Your task to perform on an android device: Go to calendar. Show me events next week Image 0: 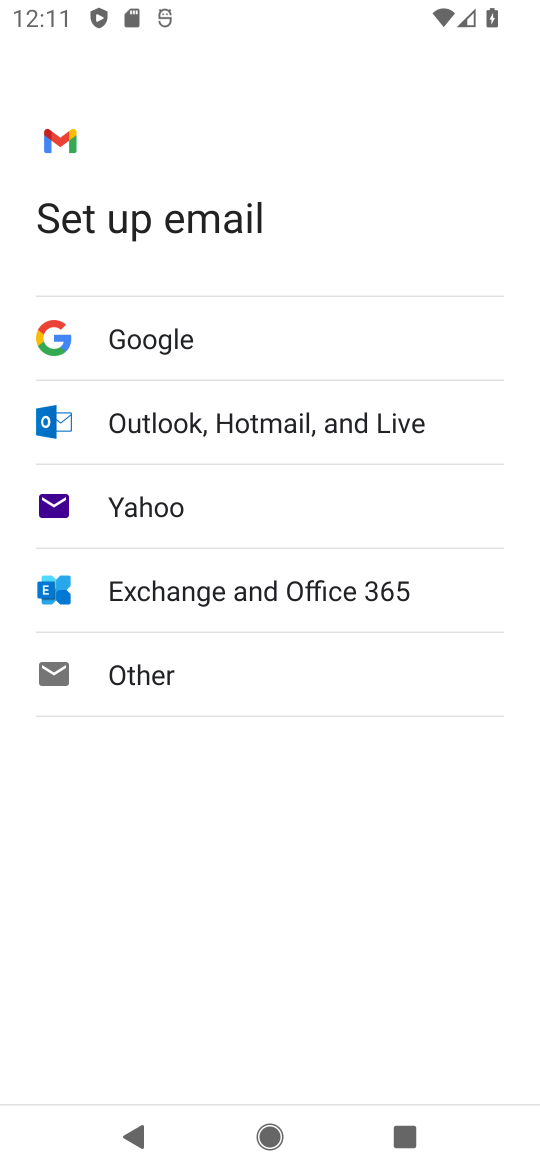
Step 0: press back button
Your task to perform on an android device: Go to calendar. Show me events next week Image 1: 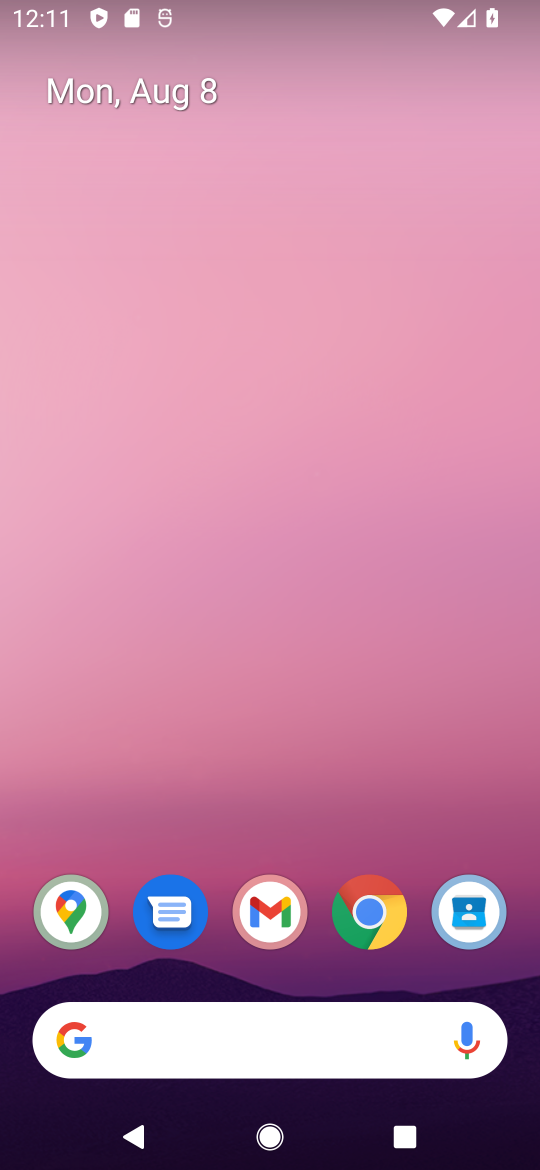
Step 1: drag from (218, 955) to (425, 58)
Your task to perform on an android device: Go to calendar. Show me events next week Image 2: 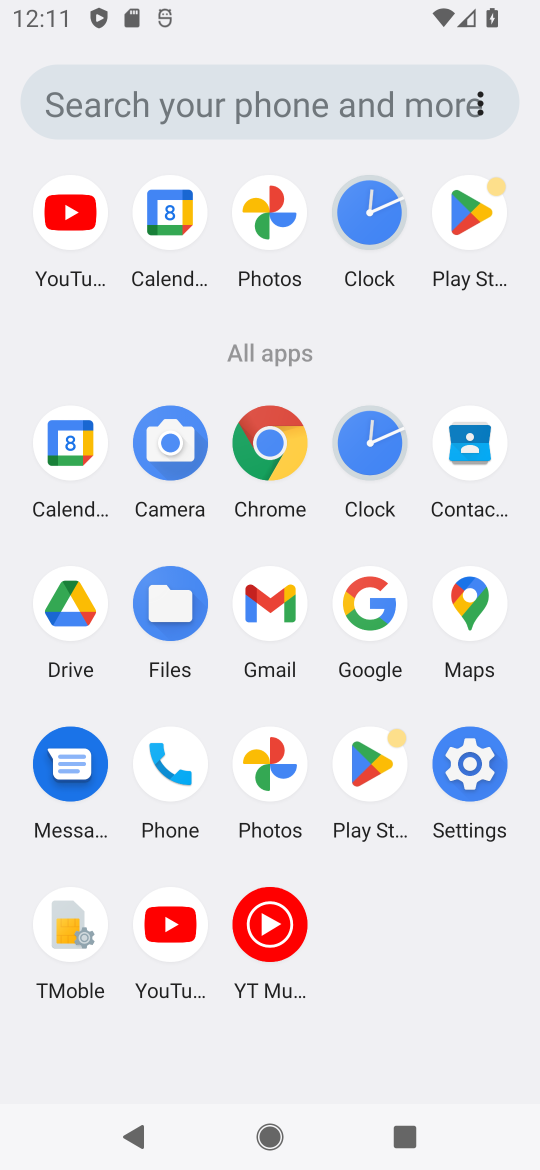
Step 2: click (71, 454)
Your task to perform on an android device: Go to calendar. Show me events next week Image 3: 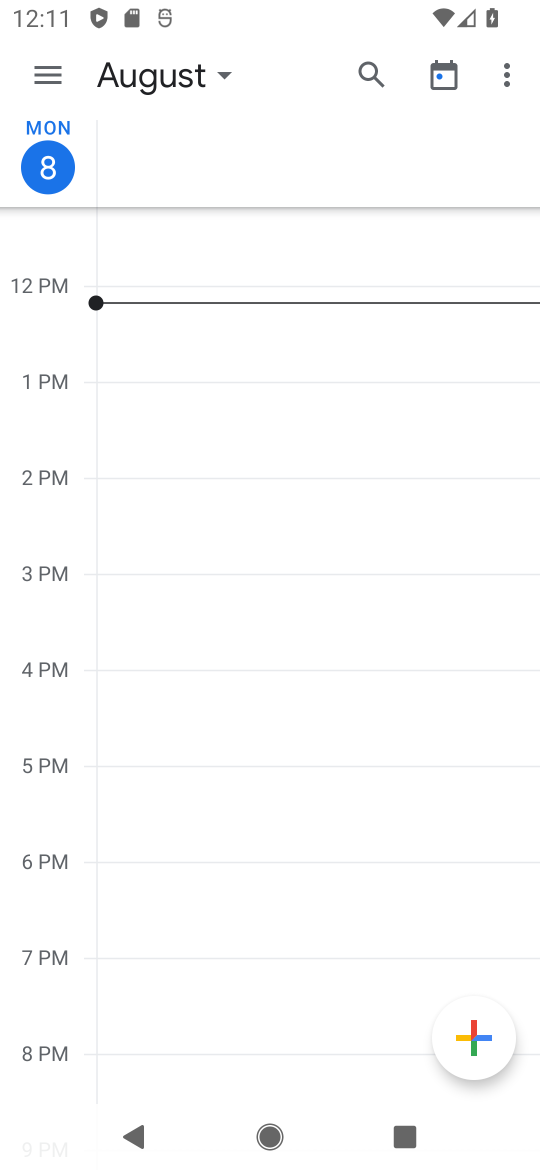
Step 3: click (169, 64)
Your task to perform on an android device: Go to calendar. Show me events next week Image 4: 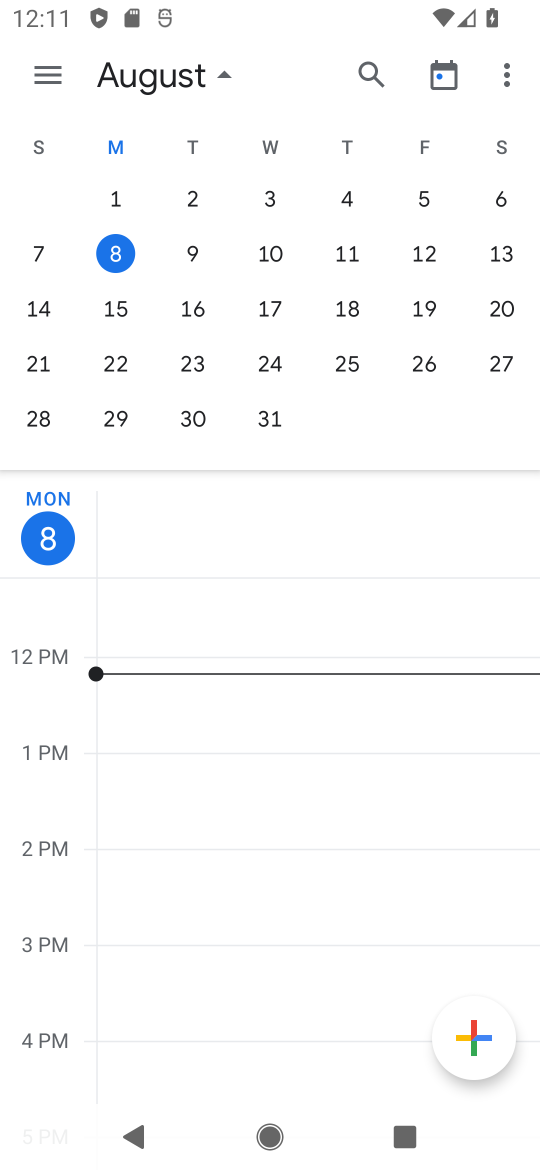
Step 4: drag from (513, 307) to (5, 301)
Your task to perform on an android device: Go to calendar. Show me events next week Image 5: 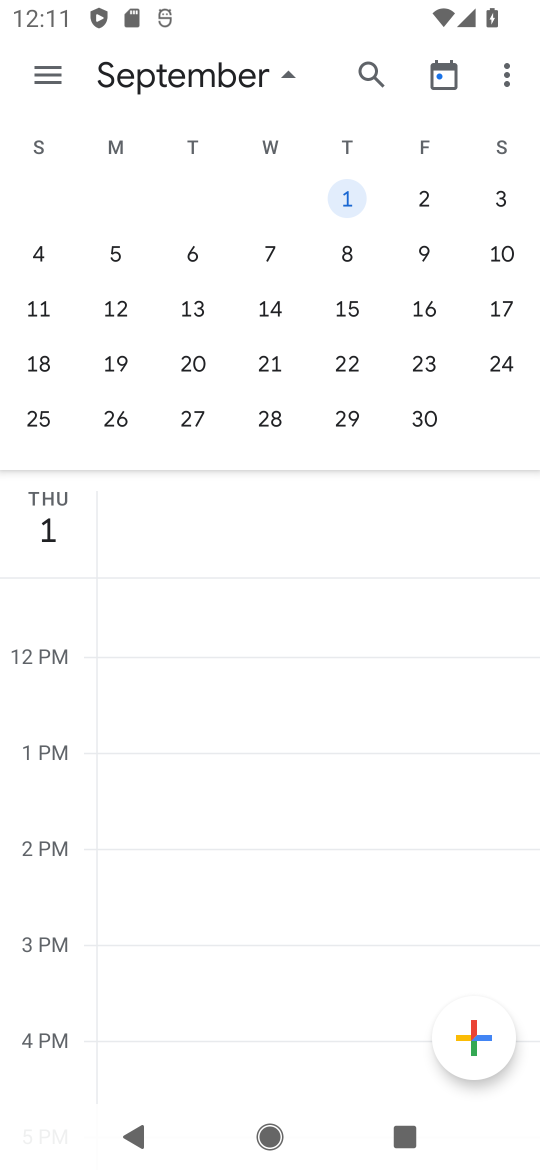
Step 5: drag from (34, 302) to (493, 304)
Your task to perform on an android device: Go to calendar. Show me events next week Image 6: 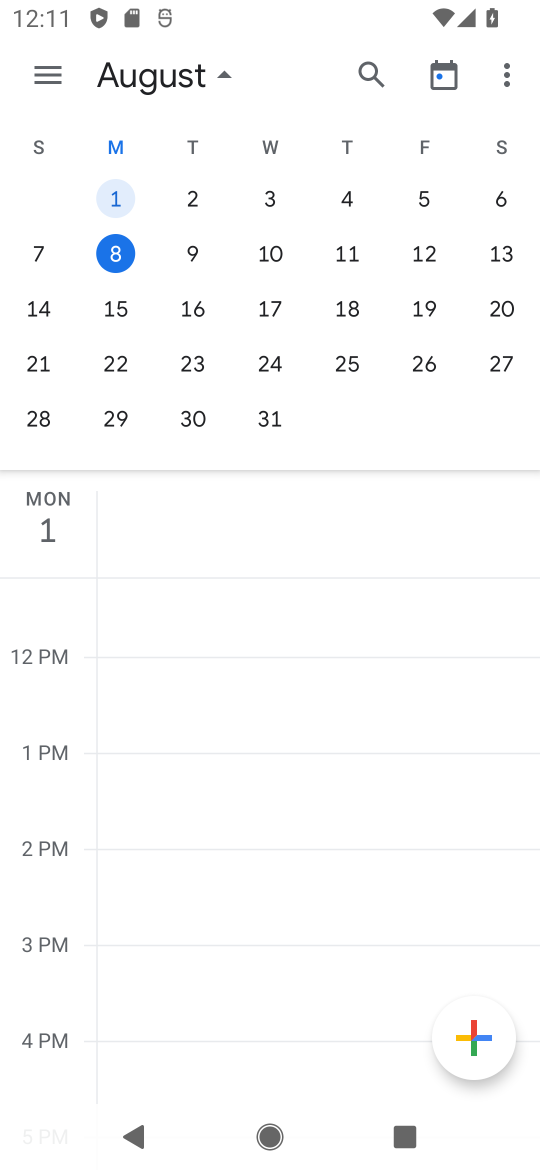
Step 6: click (114, 303)
Your task to perform on an android device: Go to calendar. Show me events next week Image 7: 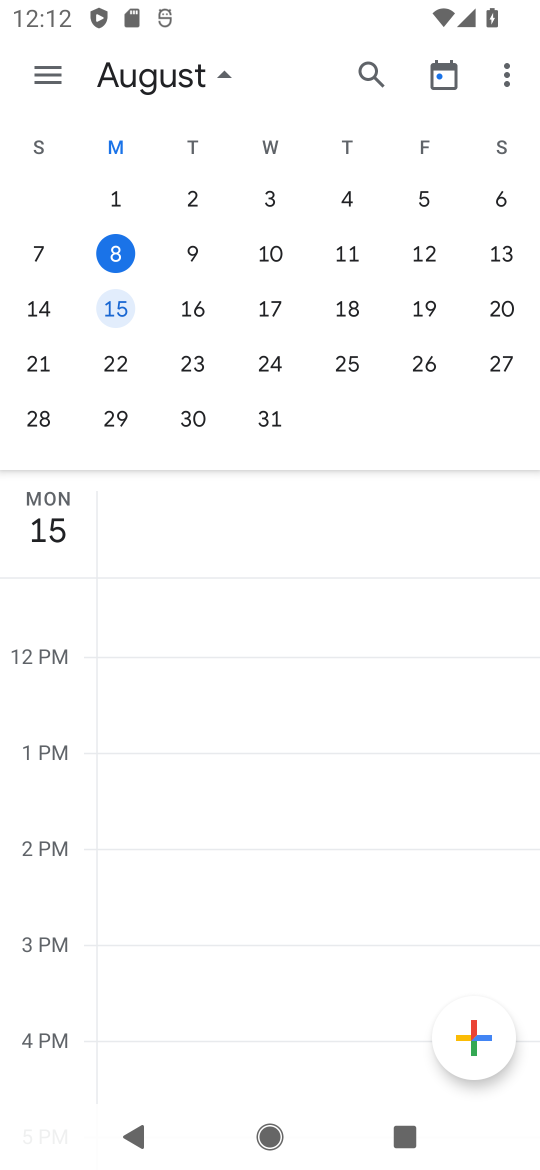
Step 7: click (33, 60)
Your task to perform on an android device: Go to calendar. Show me events next week Image 8: 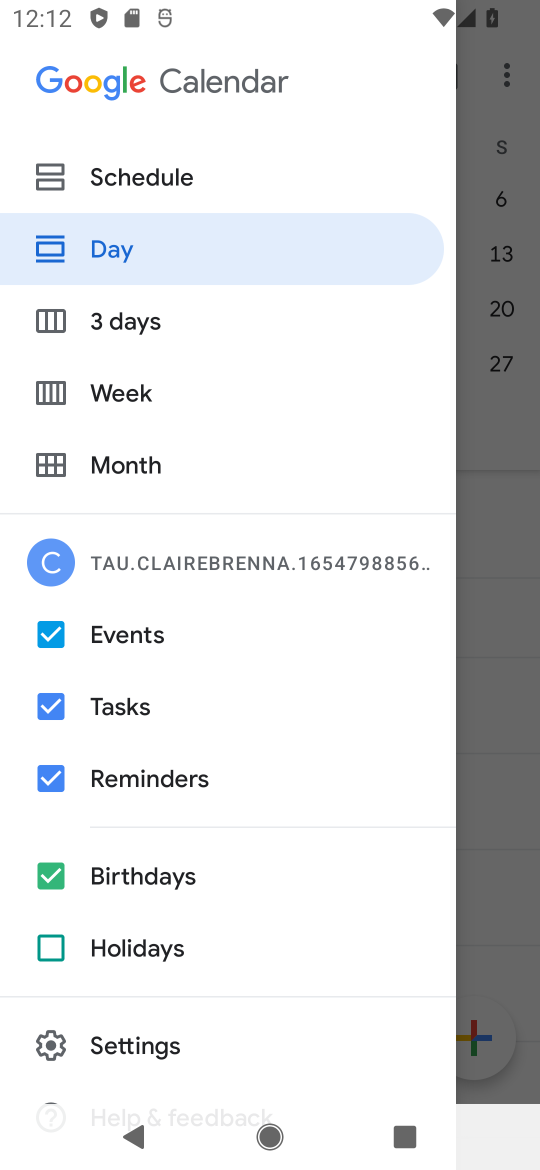
Step 8: click (164, 176)
Your task to perform on an android device: Go to calendar. Show me events next week Image 9: 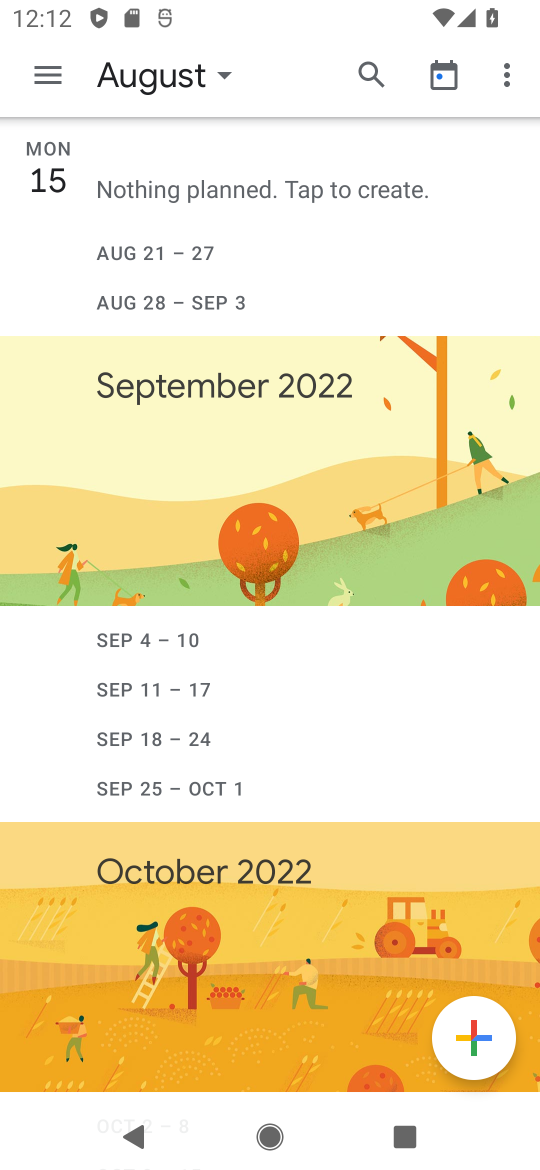
Step 9: task complete